Your task to perform on an android device: Open network settings Image 0: 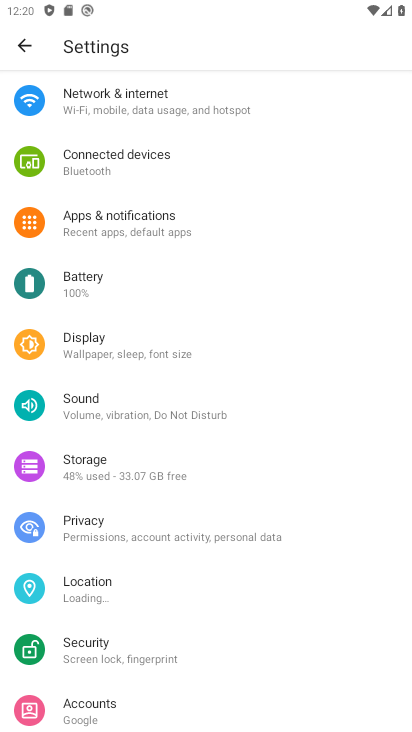
Step 0: click (187, 109)
Your task to perform on an android device: Open network settings Image 1: 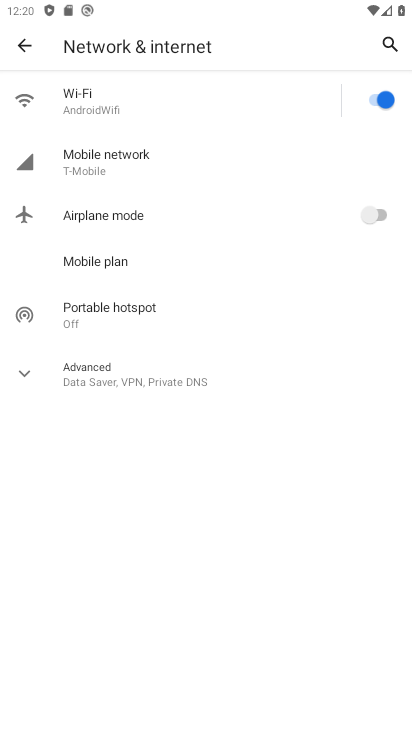
Step 1: task complete